Your task to perform on an android device: find which apps use the phone's location Image 0: 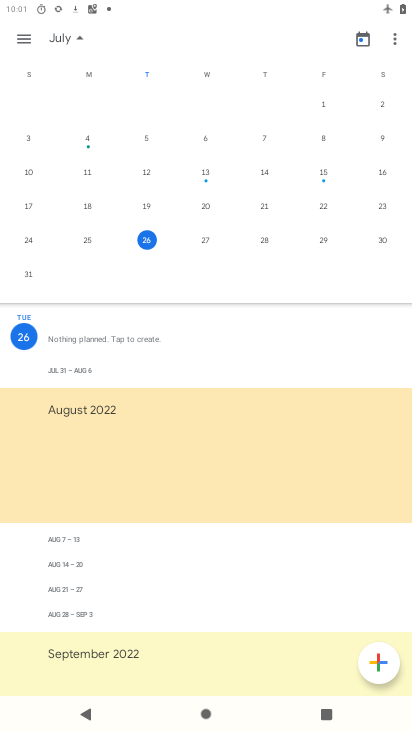
Step 0: press home button
Your task to perform on an android device: find which apps use the phone's location Image 1: 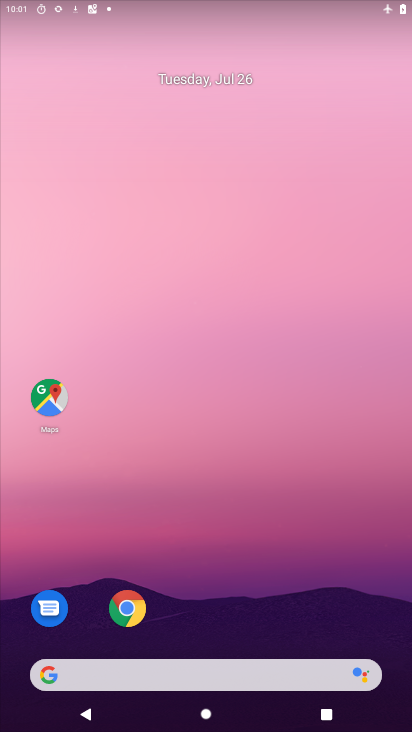
Step 1: drag from (240, 514) to (186, 117)
Your task to perform on an android device: find which apps use the phone's location Image 2: 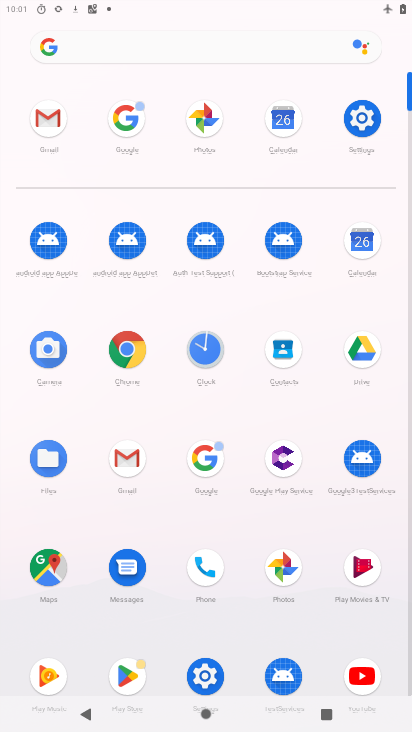
Step 2: click (353, 115)
Your task to perform on an android device: find which apps use the phone's location Image 3: 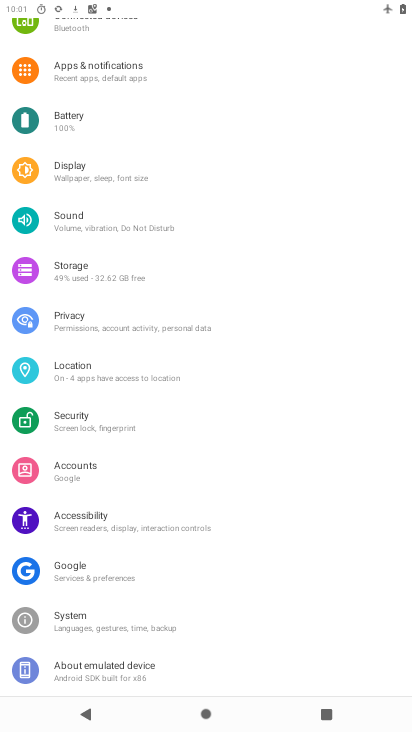
Step 3: click (120, 380)
Your task to perform on an android device: find which apps use the phone's location Image 4: 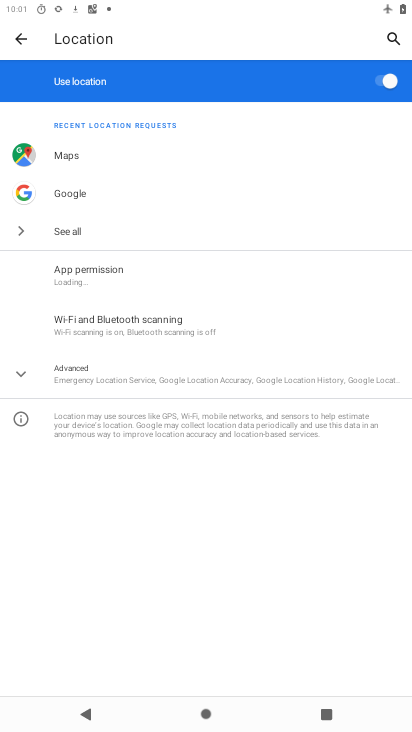
Step 4: click (122, 271)
Your task to perform on an android device: find which apps use the phone's location Image 5: 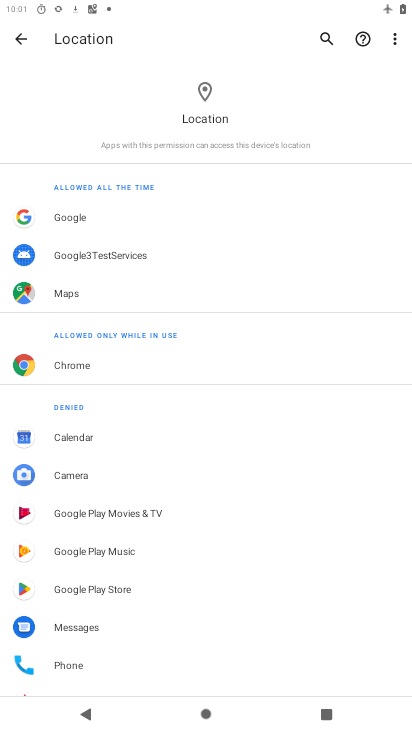
Step 5: task complete